Your task to perform on an android device: Go to eBay Image 0: 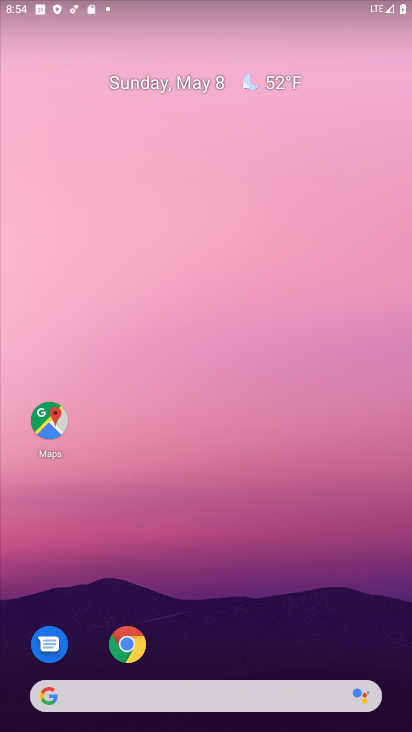
Step 0: drag from (204, 665) to (265, 145)
Your task to perform on an android device: Go to eBay Image 1: 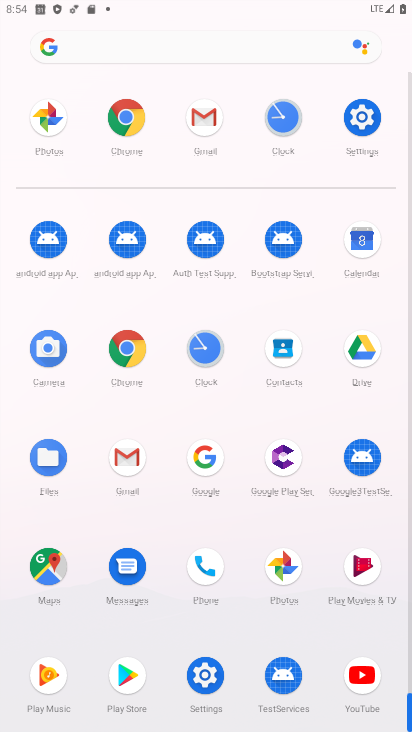
Step 1: drag from (246, 624) to (227, 137)
Your task to perform on an android device: Go to eBay Image 2: 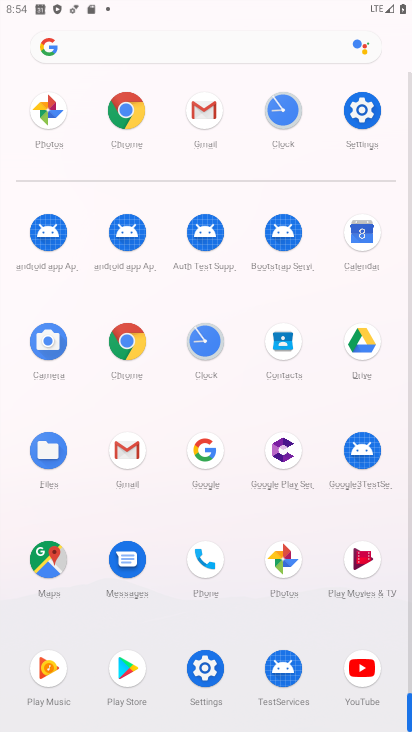
Step 2: drag from (247, 625) to (227, 339)
Your task to perform on an android device: Go to eBay Image 3: 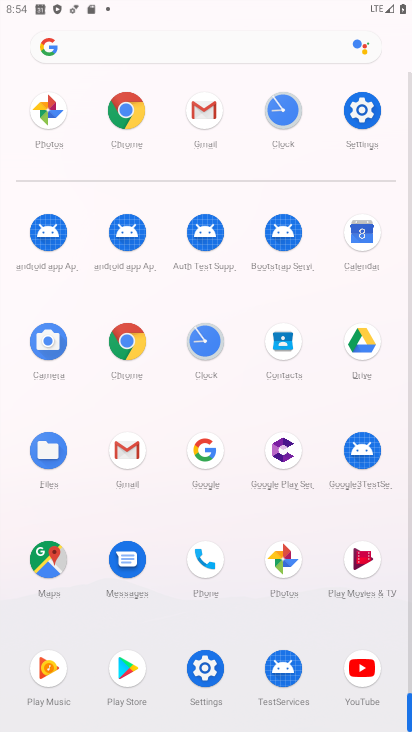
Step 3: click (128, 110)
Your task to perform on an android device: Go to eBay Image 4: 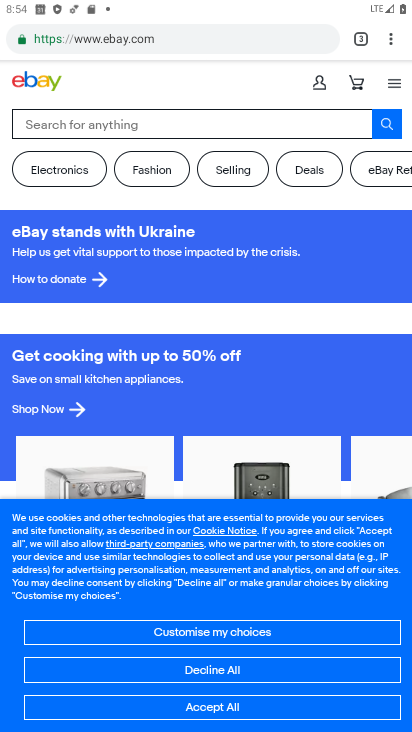
Step 4: task complete